Your task to perform on an android device: find photos in the google photos app Image 0: 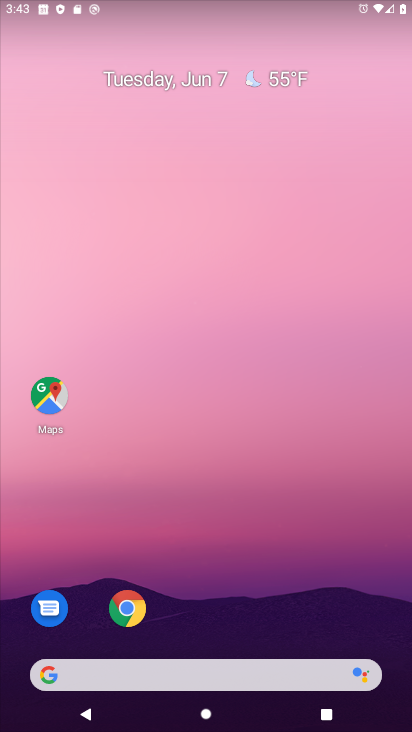
Step 0: drag from (198, 649) to (202, 81)
Your task to perform on an android device: find photos in the google photos app Image 1: 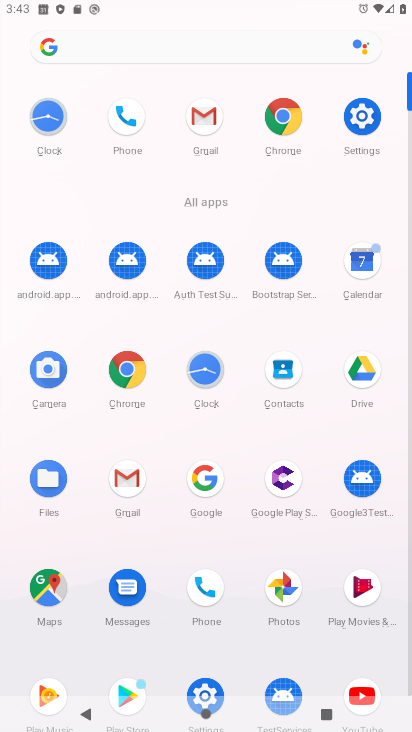
Step 1: click (272, 592)
Your task to perform on an android device: find photos in the google photos app Image 2: 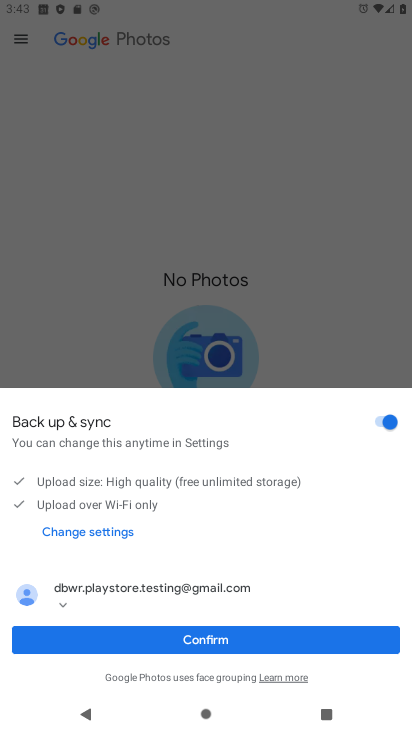
Step 2: click (190, 634)
Your task to perform on an android device: find photos in the google photos app Image 3: 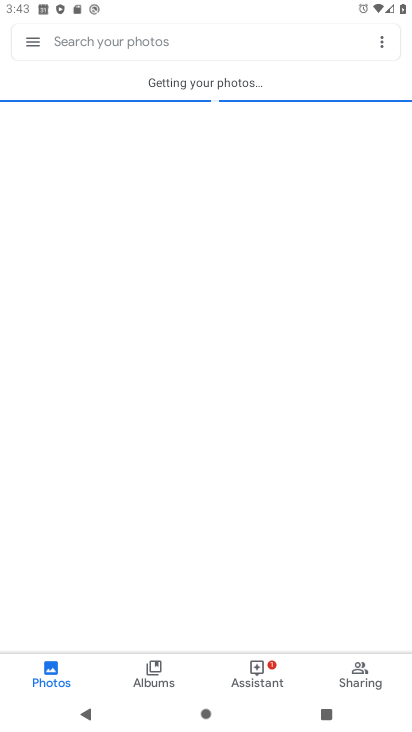
Step 3: task complete